Your task to perform on an android device: all mails in gmail Image 0: 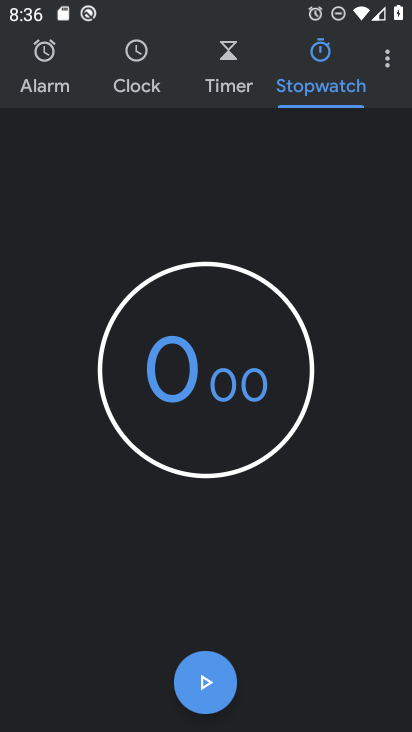
Step 0: press home button
Your task to perform on an android device: all mails in gmail Image 1: 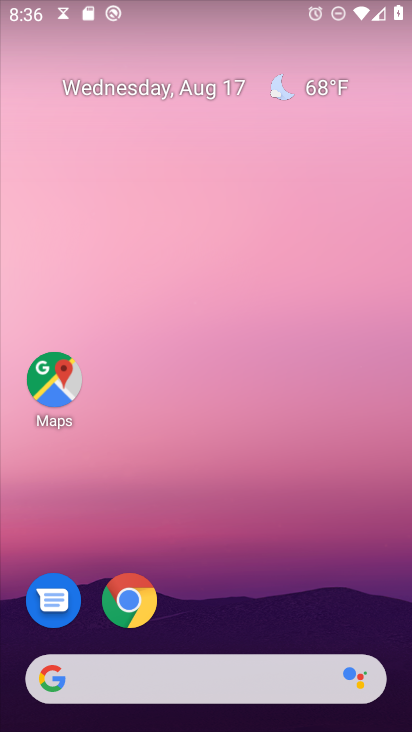
Step 1: drag from (250, 629) to (241, 74)
Your task to perform on an android device: all mails in gmail Image 2: 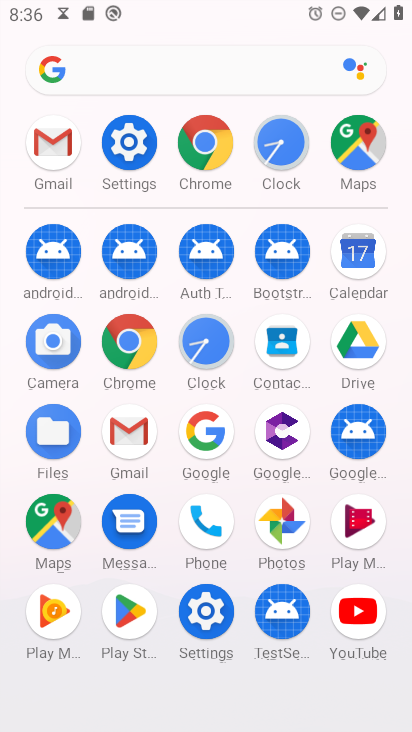
Step 2: click (46, 155)
Your task to perform on an android device: all mails in gmail Image 3: 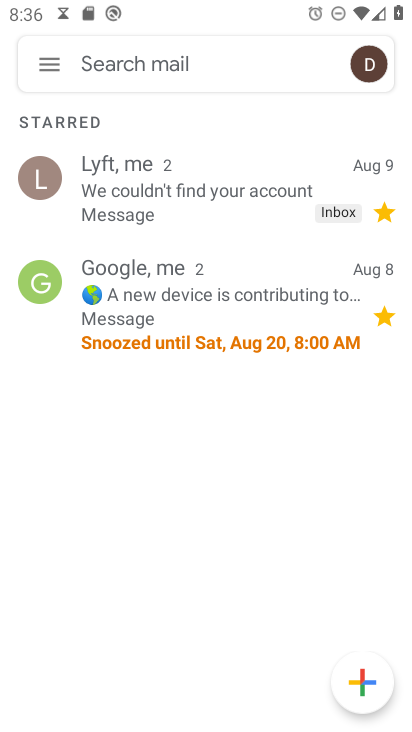
Step 3: click (53, 63)
Your task to perform on an android device: all mails in gmail Image 4: 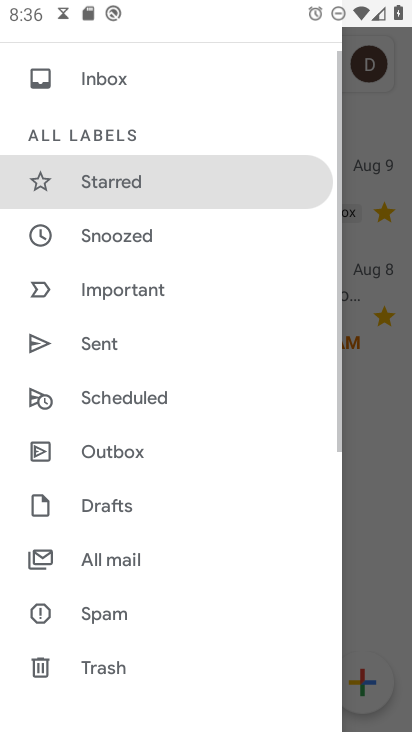
Step 4: click (101, 565)
Your task to perform on an android device: all mails in gmail Image 5: 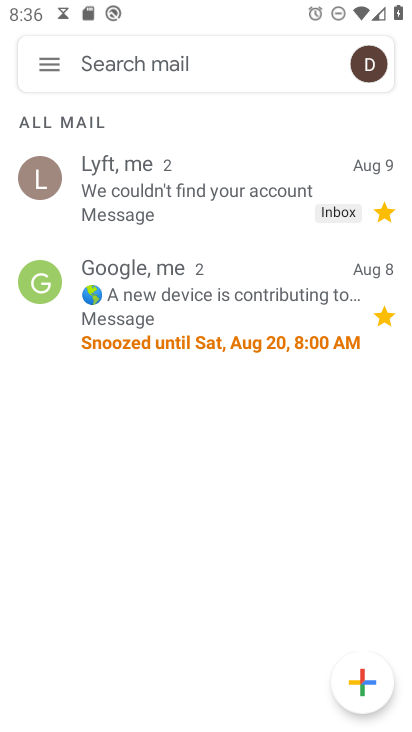
Step 5: task complete